Your task to perform on an android device: Open Google Chrome Image 0: 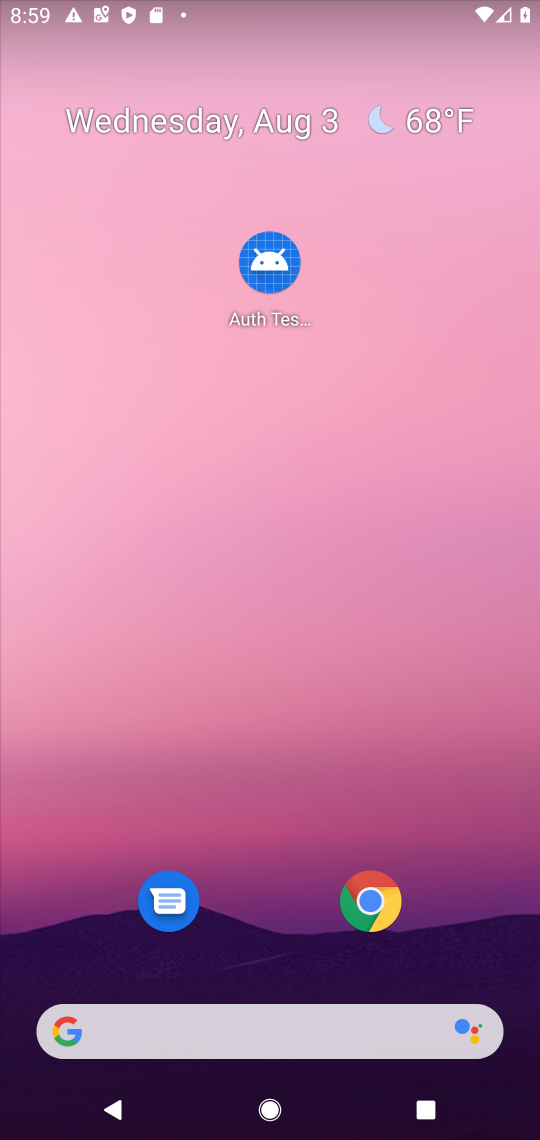
Step 0: press back button
Your task to perform on an android device: Open Google Chrome Image 1: 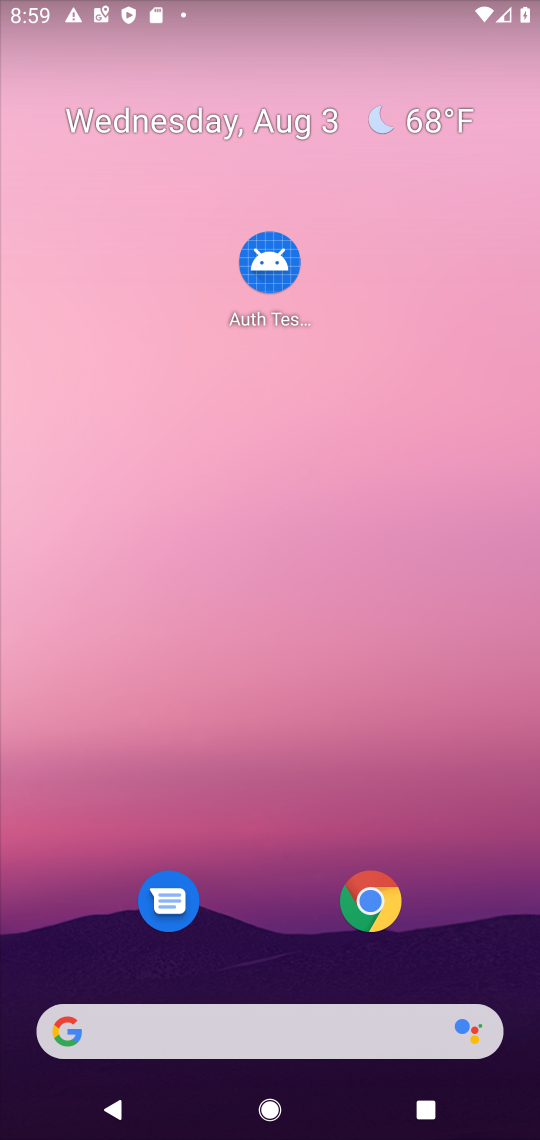
Step 1: click (373, 913)
Your task to perform on an android device: Open Google Chrome Image 2: 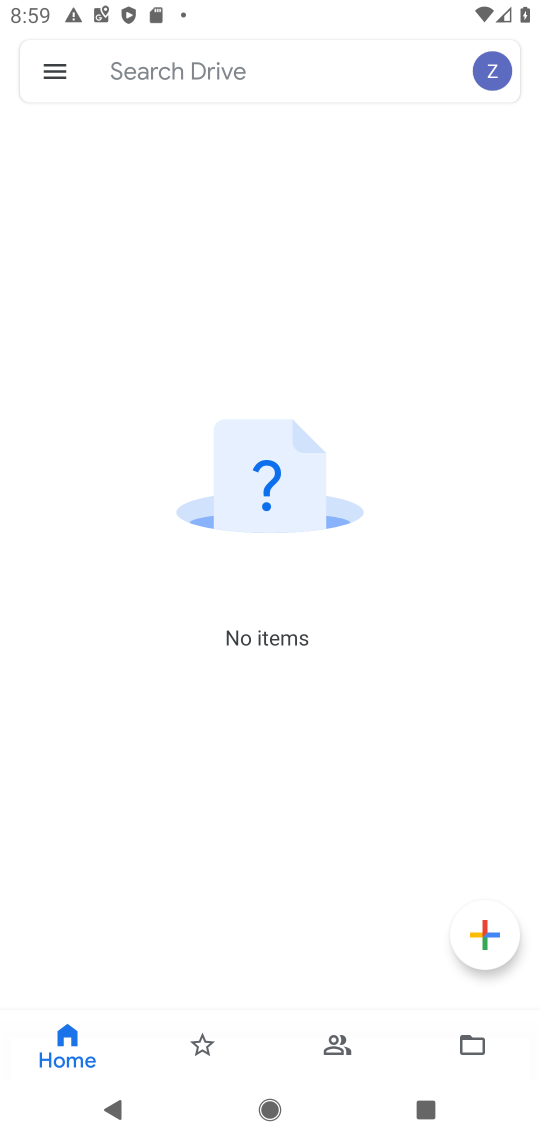
Step 2: press home button
Your task to perform on an android device: Open Google Chrome Image 3: 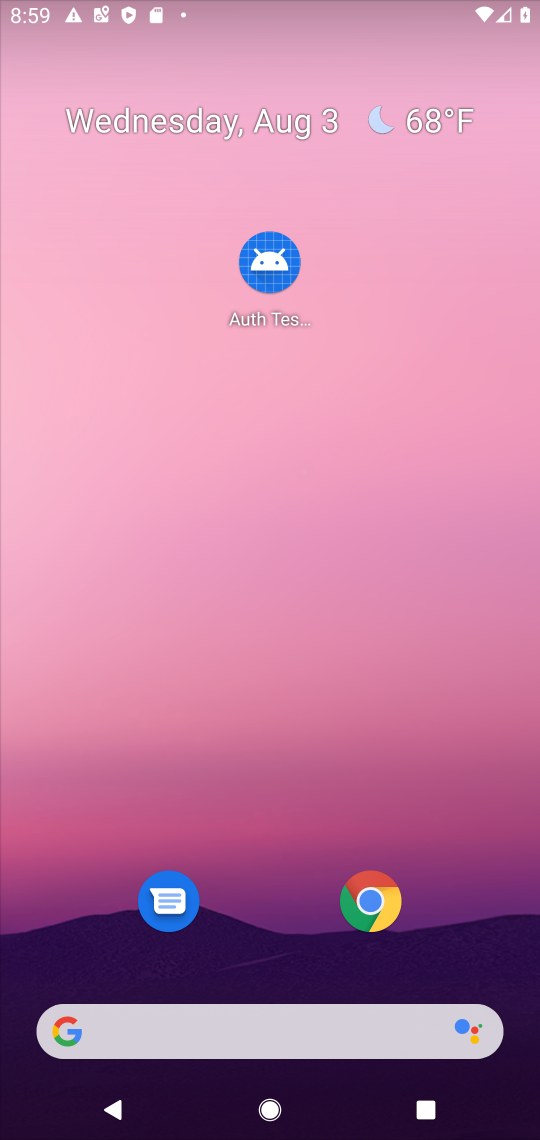
Step 3: press back button
Your task to perform on an android device: Open Google Chrome Image 4: 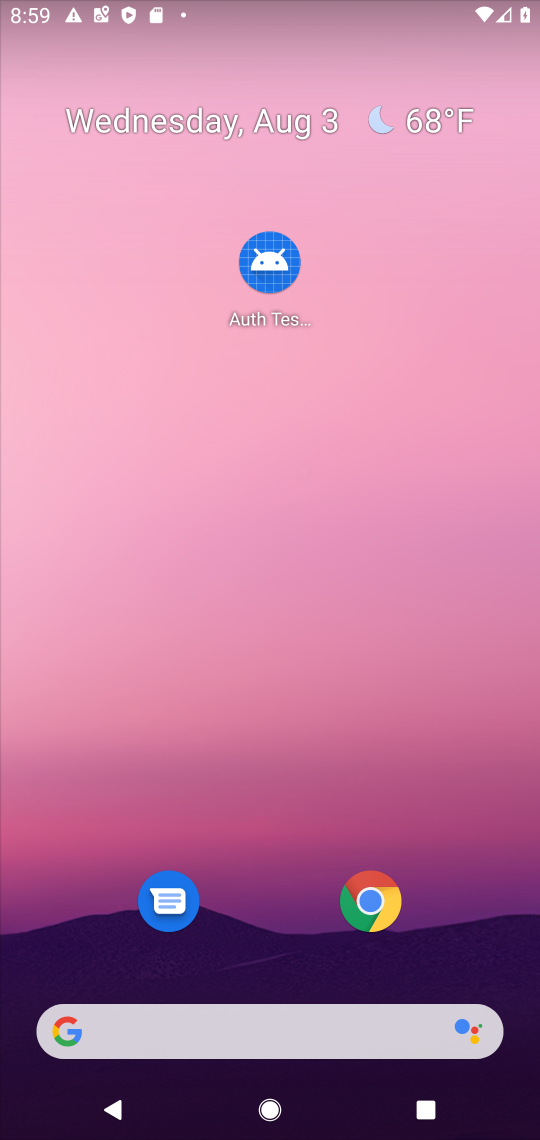
Step 4: click (390, 902)
Your task to perform on an android device: Open Google Chrome Image 5: 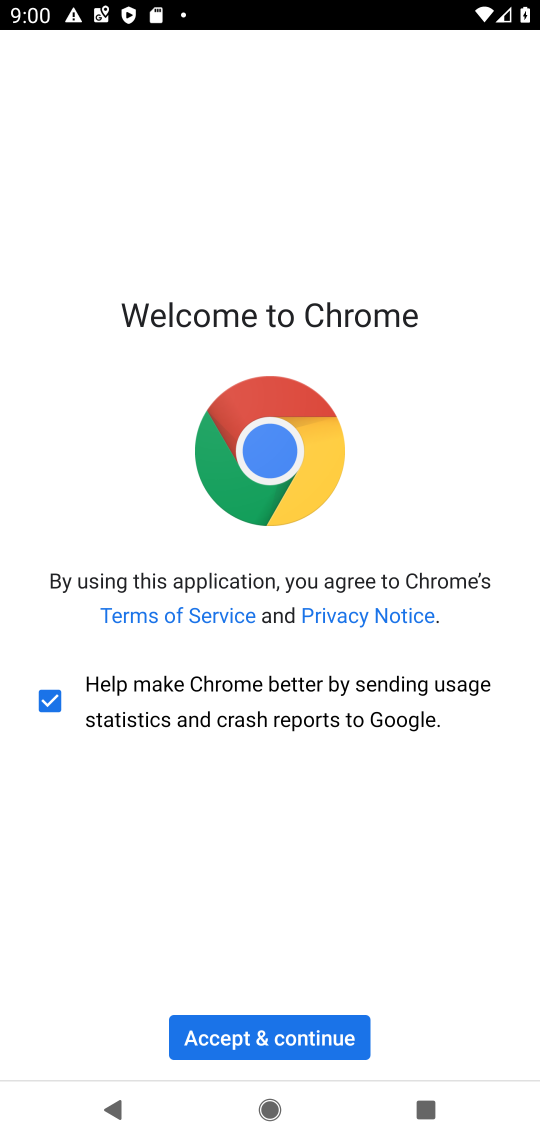
Step 5: task complete